Your task to perform on an android device: Open Youtube and go to the subscriptions tab Image 0: 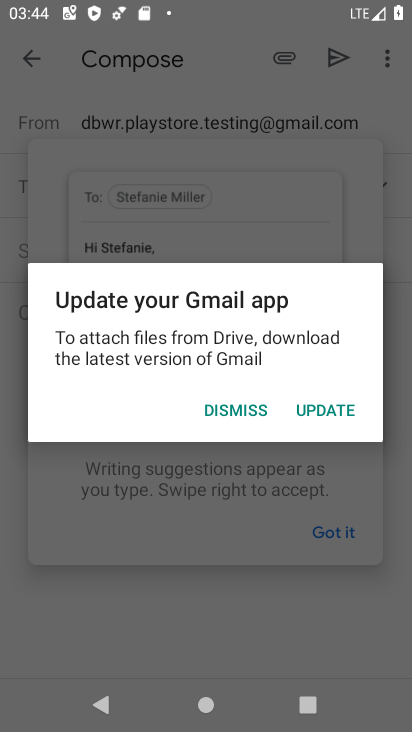
Step 0: press home button
Your task to perform on an android device: Open Youtube and go to the subscriptions tab Image 1: 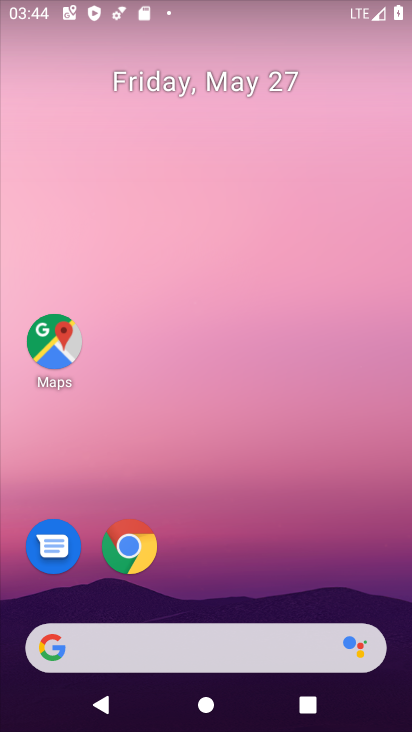
Step 1: drag from (379, 619) to (373, 151)
Your task to perform on an android device: Open Youtube and go to the subscriptions tab Image 2: 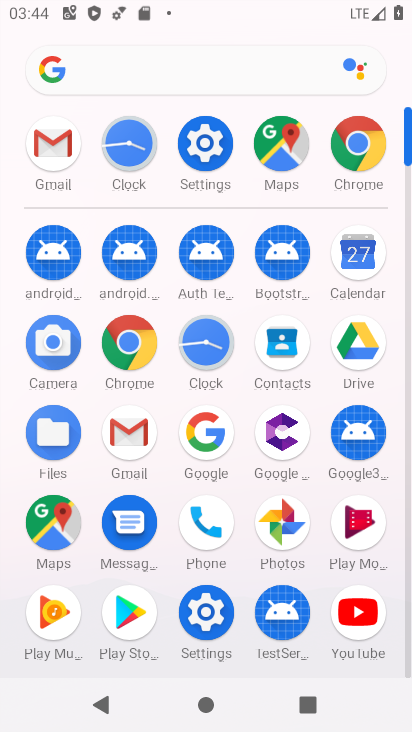
Step 2: click (345, 617)
Your task to perform on an android device: Open Youtube and go to the subscriptions tab Image 3: 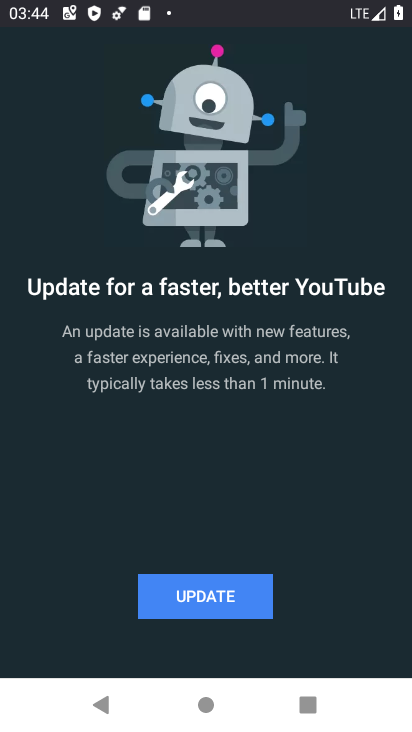
Step 3: click (196, 618)
Your task to perform on an android device: Open Youtube and go to the subscriptions tab Image 4: 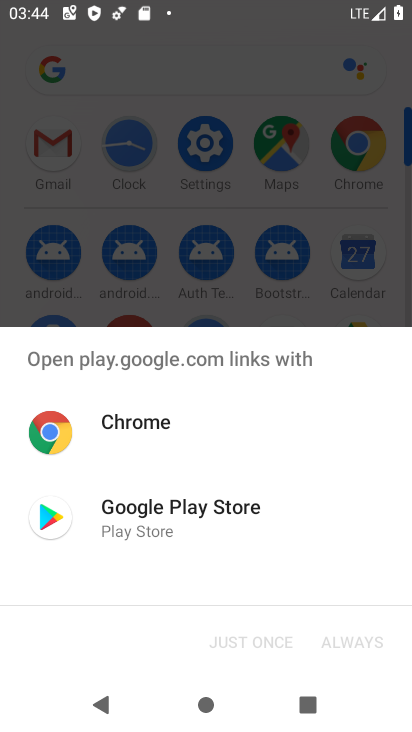
Step 4: click (109, 525)
Your task to perform on an android device: Open Youtube and go to the subscriptions tab Image 5: 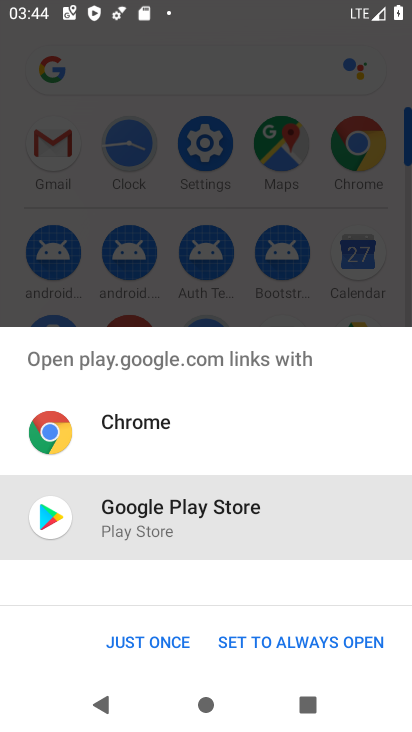
Step 5: click (253, 648)
Your task to perform on an android device: Open Youtube and go to the subscriptions tab Image 6: 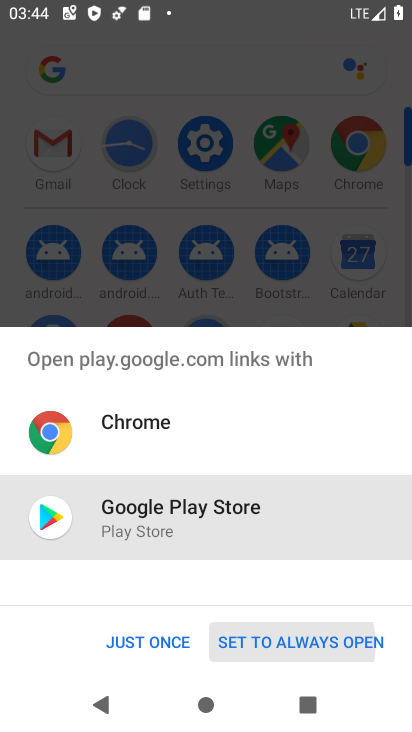
Step 6: click (127, 648)
Your task to perform on an android device: Open Youtube and go to the subscriptions tab Image 7: 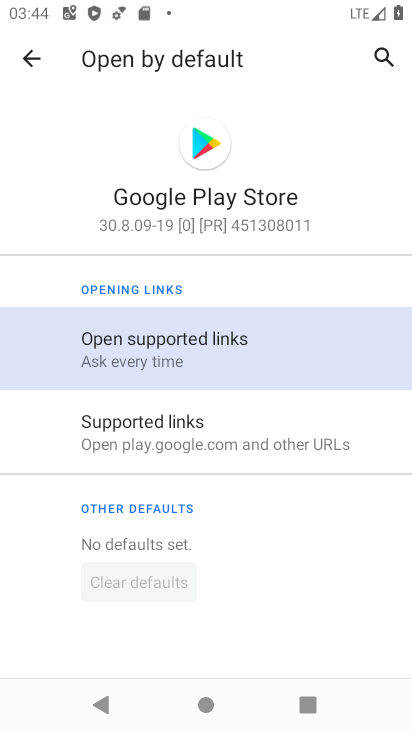
Step 7: click (31, 62)
Your task to perform on an android device: Open Youtube and go to the subscriptions tab Image 8: 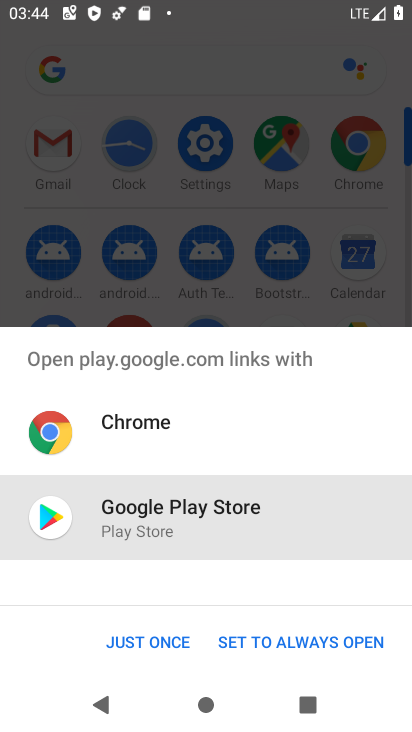
Step 8: click (164, 634)
Your task to perform on an android device: Open Youtube and go to the subscriptions tab Image 9: 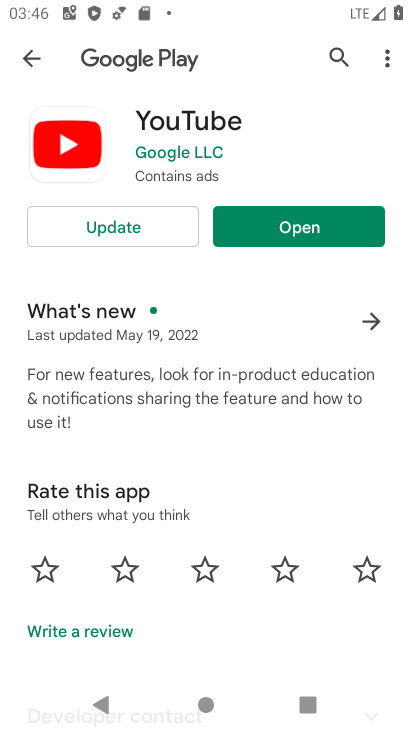
Step 9: click (322, 223)
Your task to perform on an android device: Open Youtube and go to the subscriptions tab Image 10: 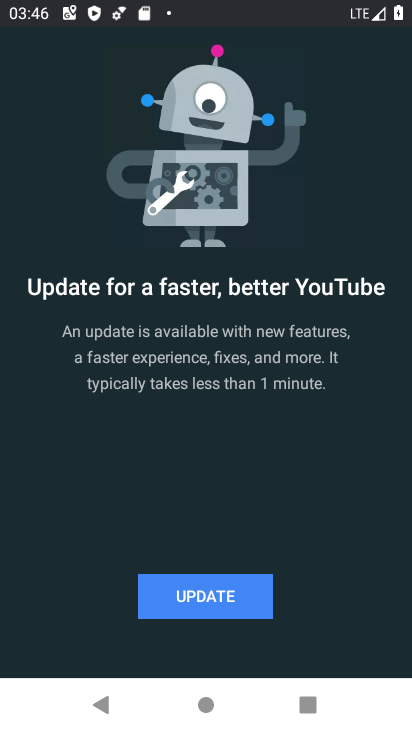
Step 10: click (212, 589)
Your task to perform on an android device: Open Youtube and go to the subscriptions tab Image 11: 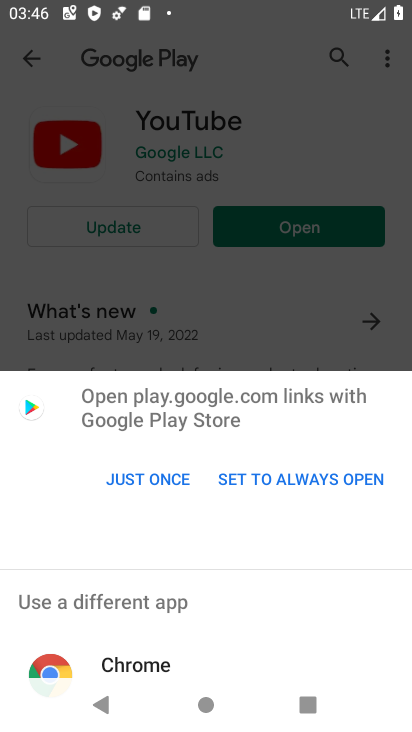
Step 11: click (142, 477)
Your task to perform on an android device: Open Youtube and go to the subscriptions tab Image 12: 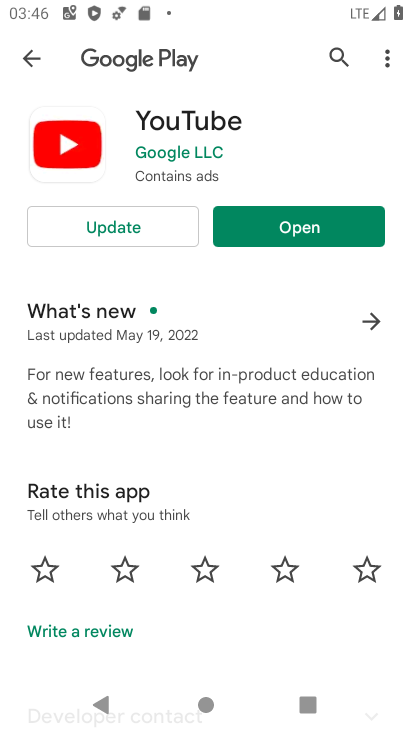
Step 12: click (137, 217)
Your task to perform on an android device: Open Youtube and go to the subscriptions tab Image 13: 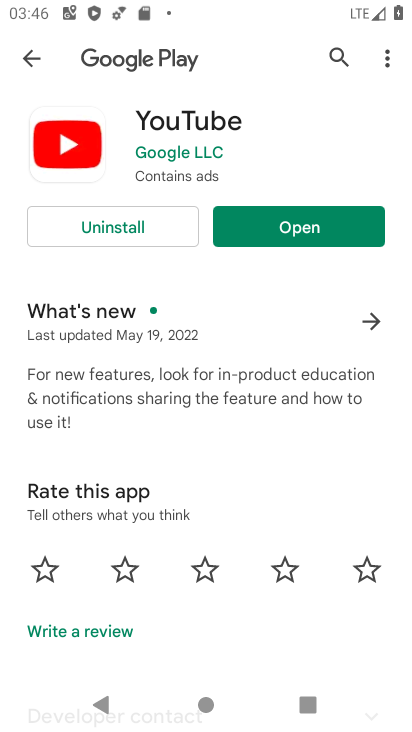
Step 13: click (263, 233)
Your task to perform on an android device: Open Youtube and go to the subscriptions tab Image 14: 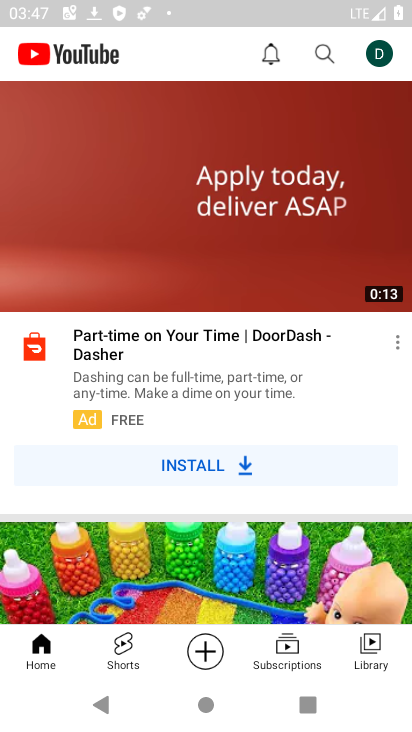
Step 14: click (279, 662)
Your task to perform on an android device: Open Youtube and go to the subscriptions tab Image 15: 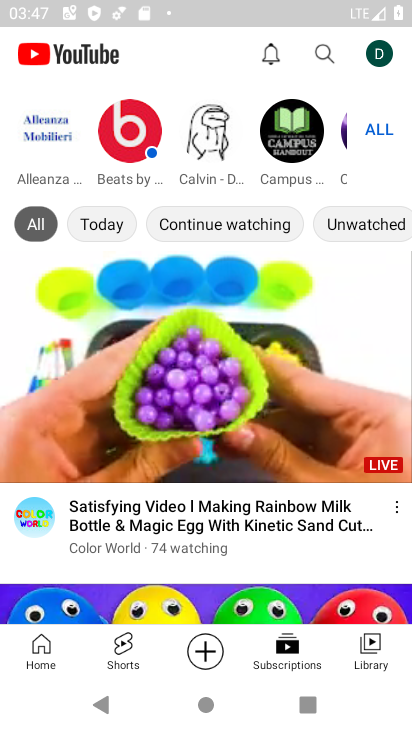
Step 15: task complete